Your task to perform on an android device: Do I have any events this weekend? Image 0: 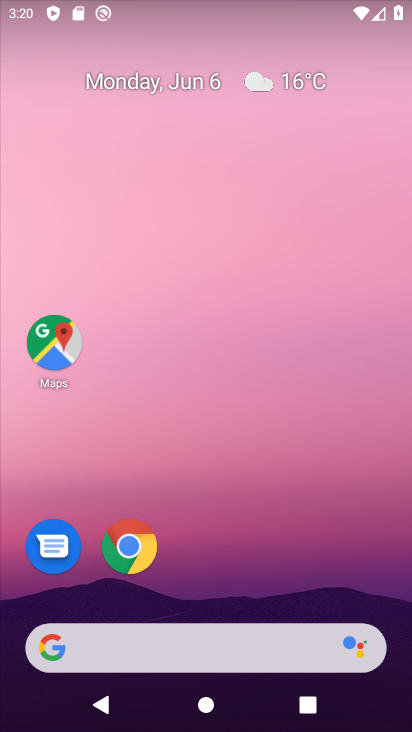
Step 0: drag from (269, 551) to (332, 20)
Your task to perform on an android device: Do I have any events this weekend? Image 1: 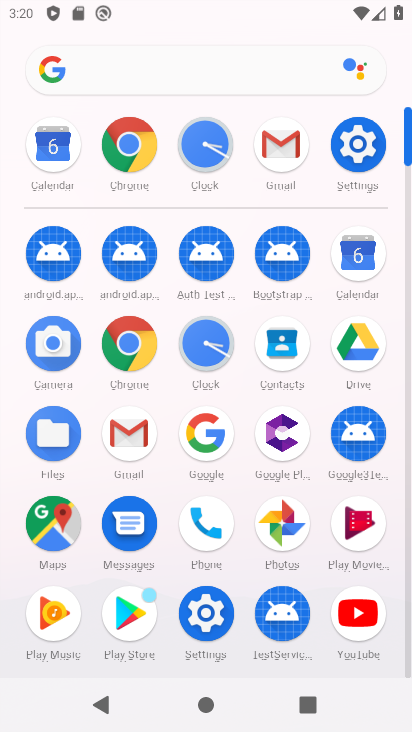
Step 1: click (44, 157)
Your task to perform on an android device: Do I have any events this weekend? Image 2: 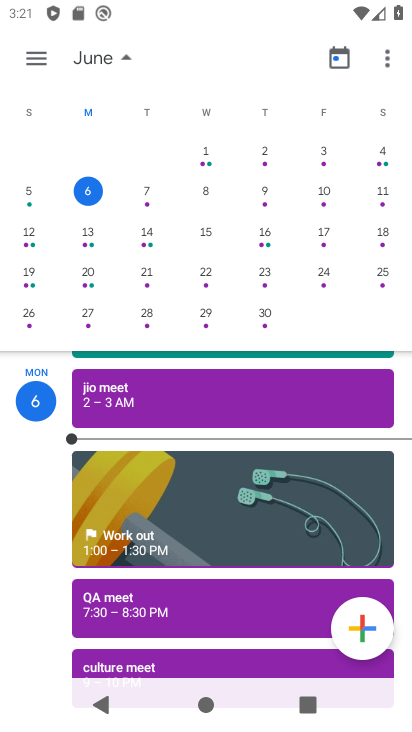
Step 2: click (384, 197)
Your task to perform on an android device: Do I have any events this weekend? Image 3: 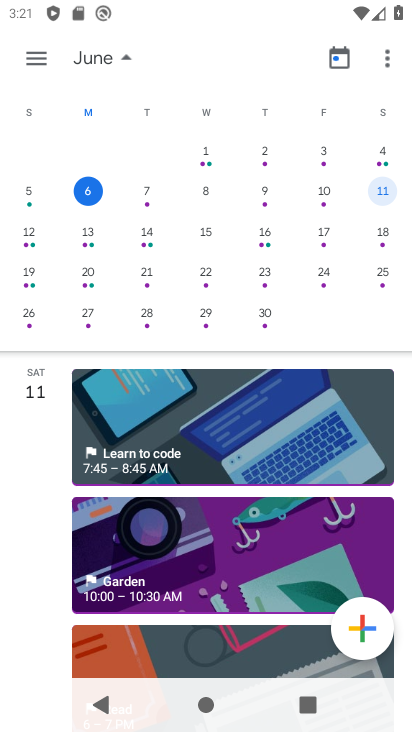
Step 3: task complete